Your task to perform on an android device: Open Reddit.com Image 0: 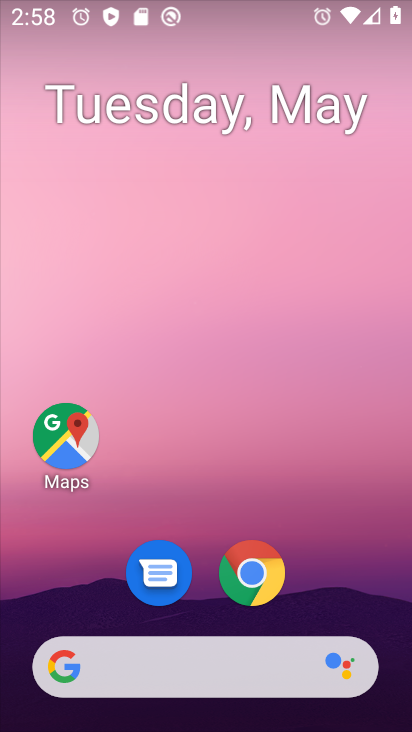
Step 0: drag from (317, 556) to (283, 23)
Your task to perform on an android device: Open Reddit.com Image 1: 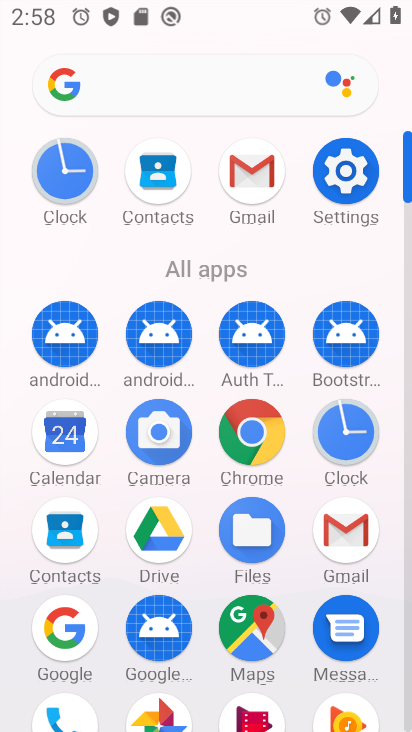
Step 1: click (253, 427)
Your task to perform on an android device: Open Reddit.com Image 2: 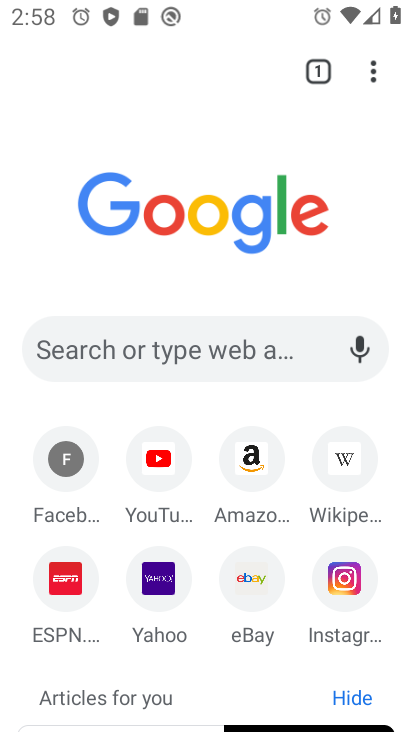
Step 2: click (189, 342)
Your task to perform on an android device: Open Reddit.com Image 3: 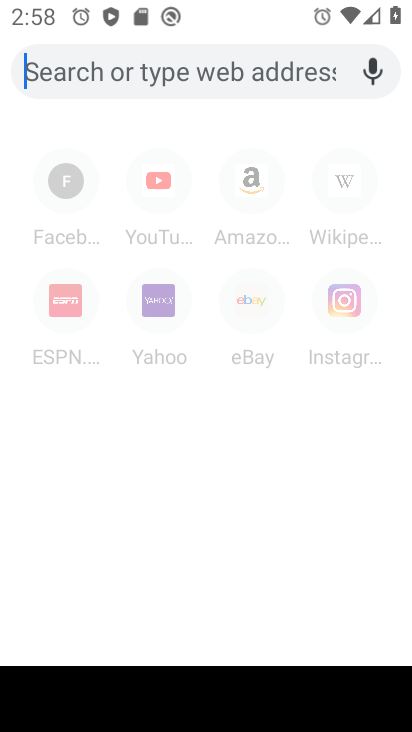
Step 3: type "Reddit.com"
Your task to perform on an android device: Open Reddit.com Image 4: 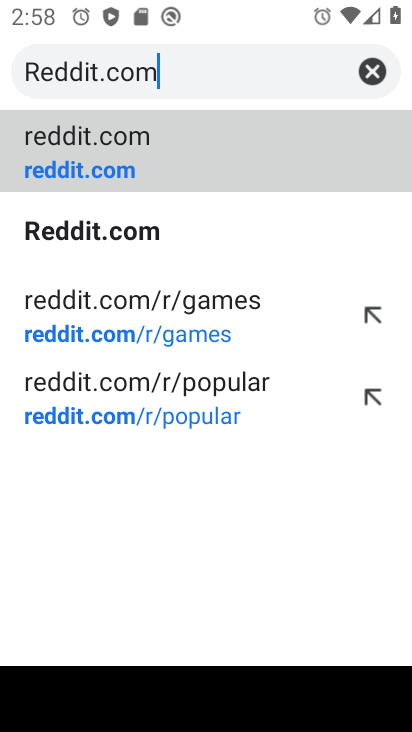
Step 4: type ""
Your task to perform on an android device: Open Reddit.com Image 5: 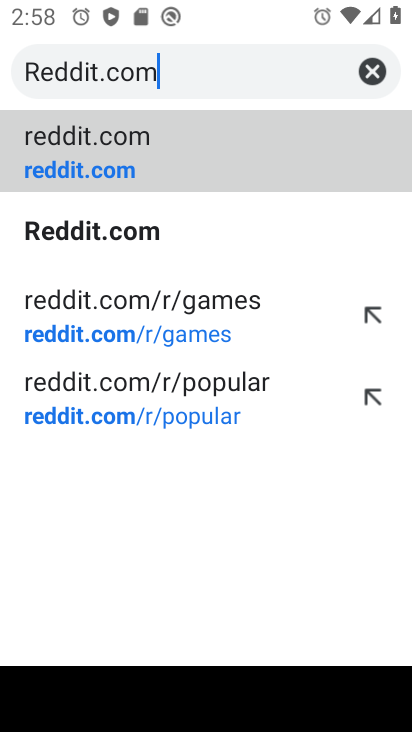
Step 5: click (190, 152)
Your task to perform on an android device: Open Reddit.com Image 6: 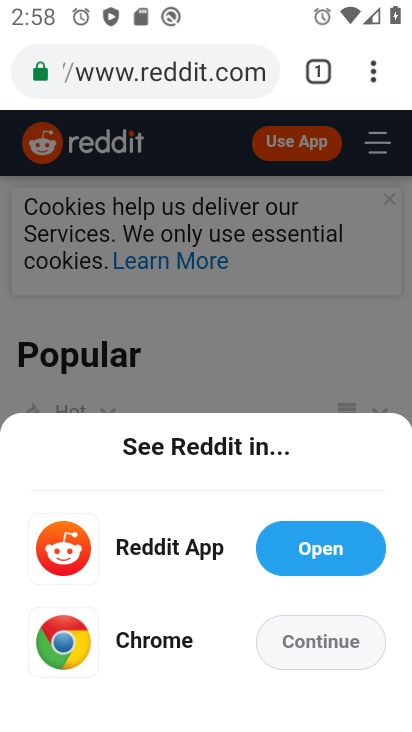
Step 6: task complete